Your task to perform on an android device: Search for "asus zenbook" on target, select the first entry, and add it to the cart. Image 0: 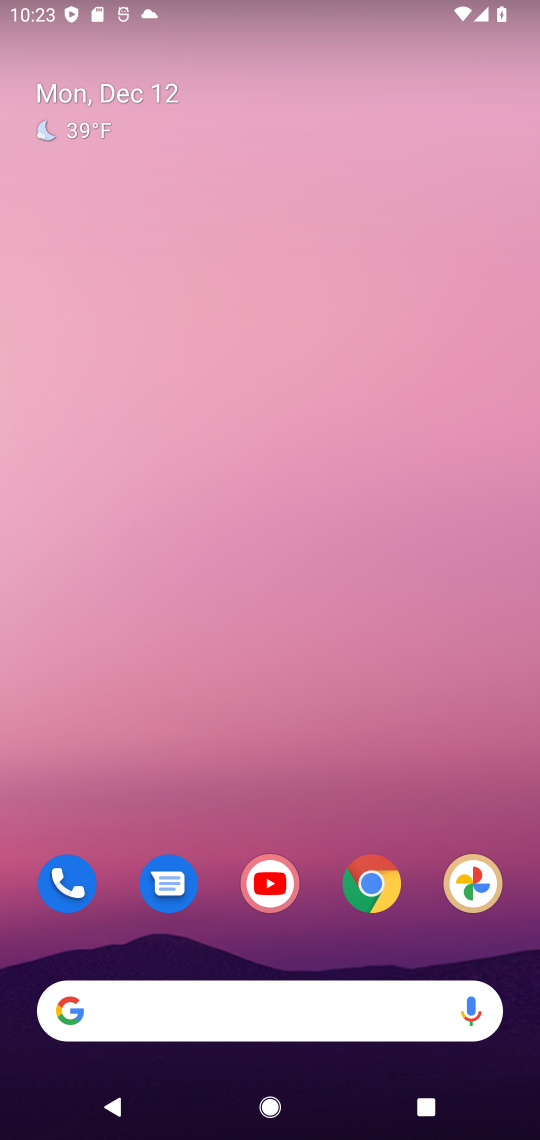
Step 0: click (235, 1013)
Your task to perform on an android device: Search for "asus zenbook" on target, select the first entry, and add it to the cart. Image 1: 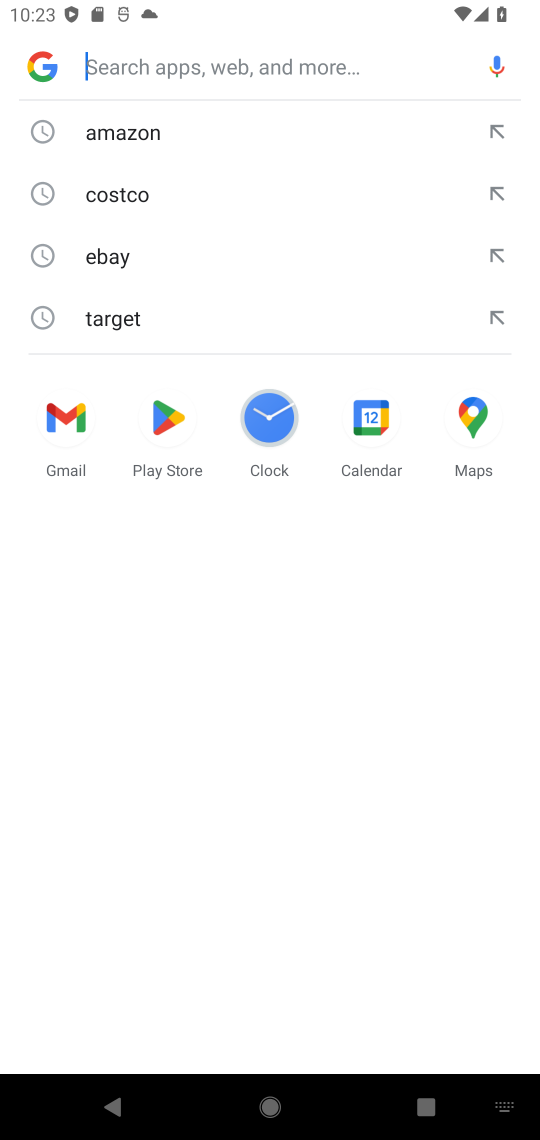
Step 1: click (143, 304)
Your task to perform on an android device: Search for "asus zenbook" on target, select the first entry, and add it to the cart. Image 2: 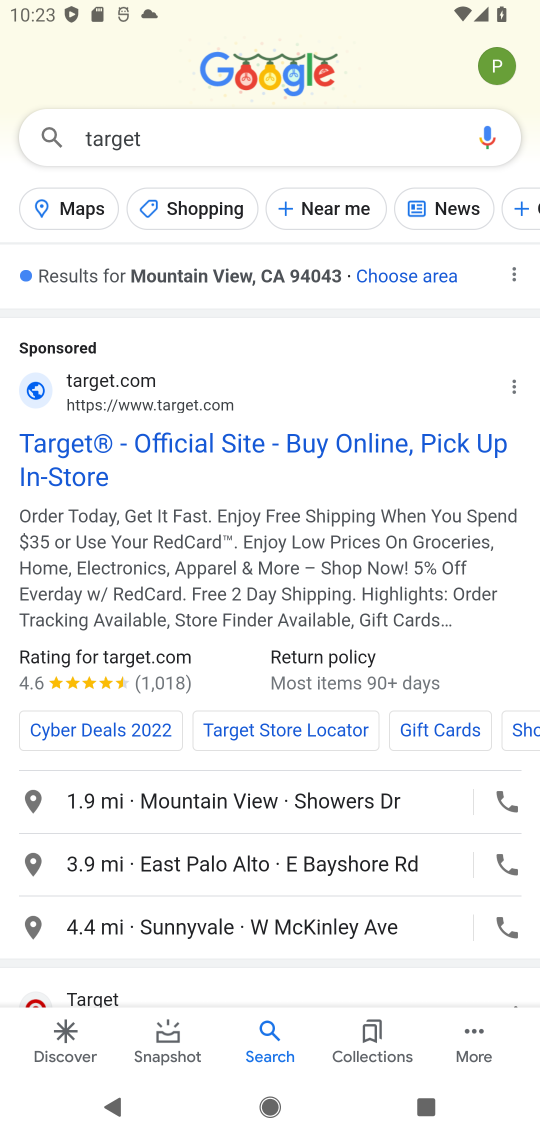
Step 2: drag from (227, 611) to (239, 541)
Your task to perform on an android device: Search for "asus zenbook" on target, select the first entry, and add it to the cart. Image 3: 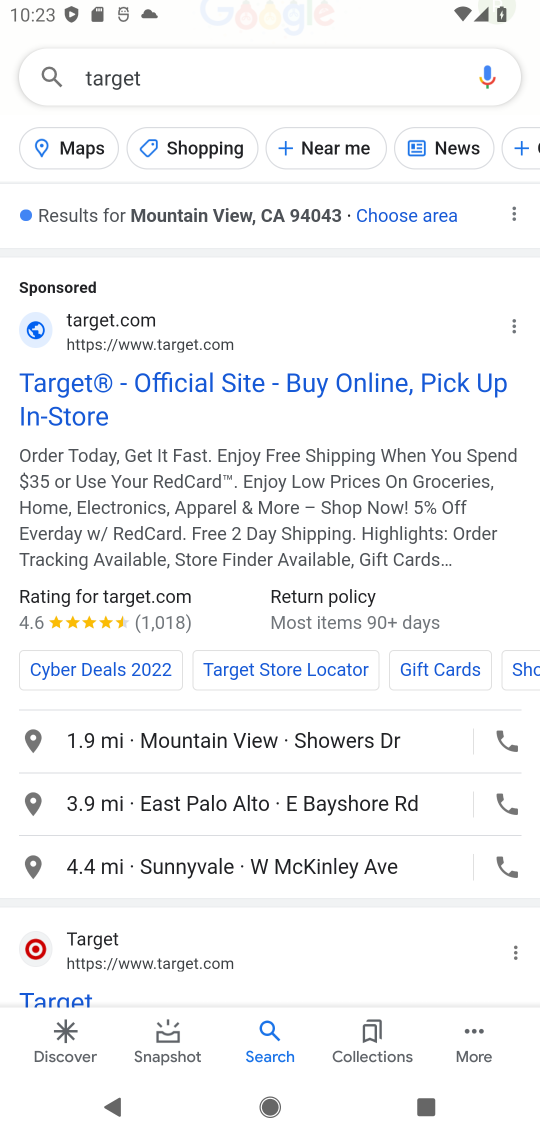
Step 3: click (56, 995)
Your task to perform on an android device: Search for "asus zenbook" on target, select the first entry, and add it to the cart. Image 4: 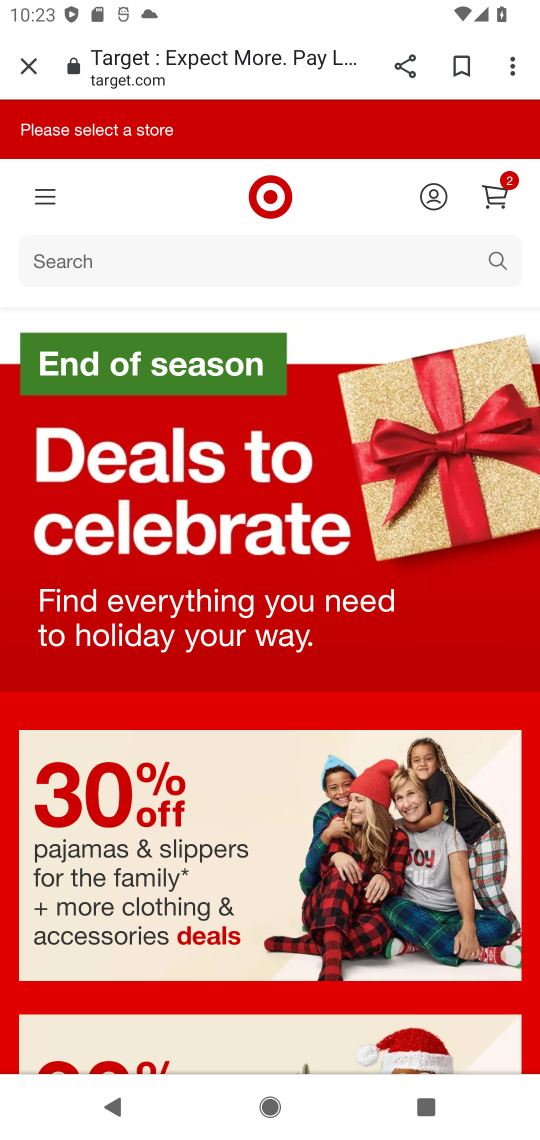
Step 4: click (253, 264)
Your task to perform on an android device: Search for "asus zenbook" on target, select the first entry, and add it to the cart. Image 5: 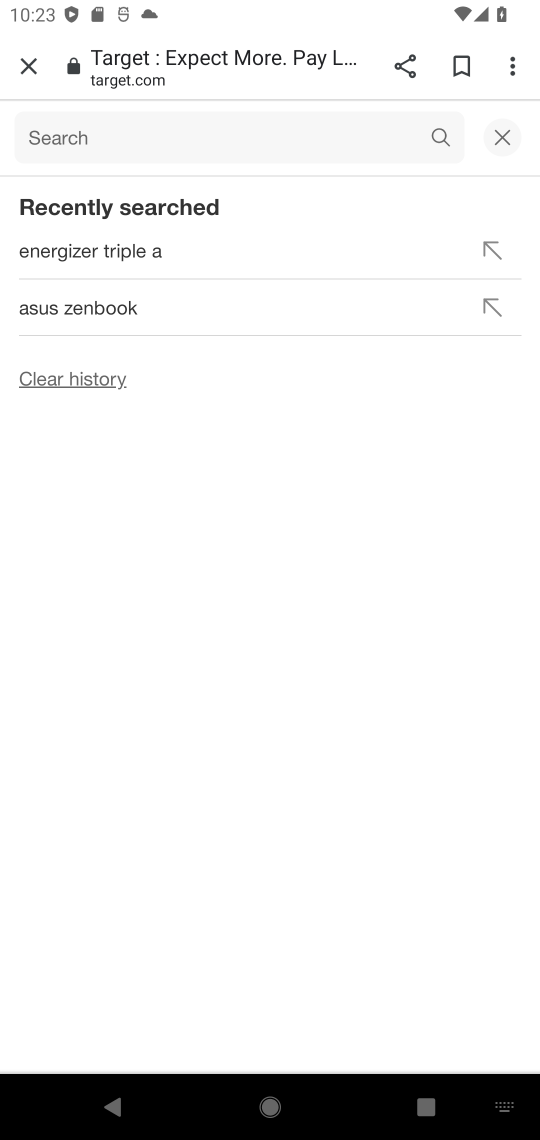
Step 5: type "asus zenbook"
Your task to perform on an android device: Search for "asus zenbook" on target, select the first entry, and add it to the cart. Image 6: 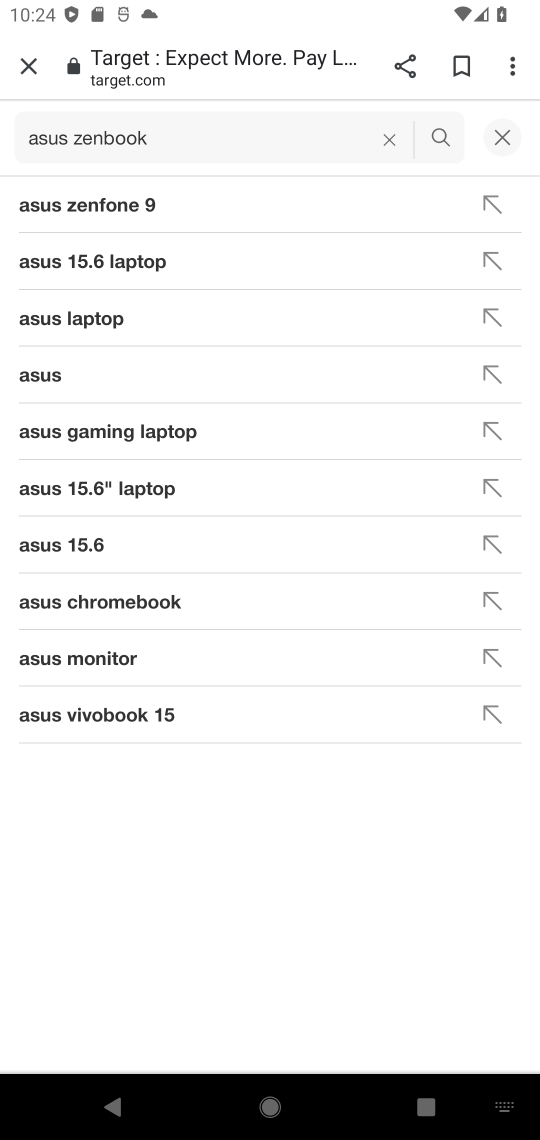
Step 6: click (439, 135)
Your task to perform on an android device: Search for "asus zenbook" on target, select the first entry, and add it to the cart. Image 7: 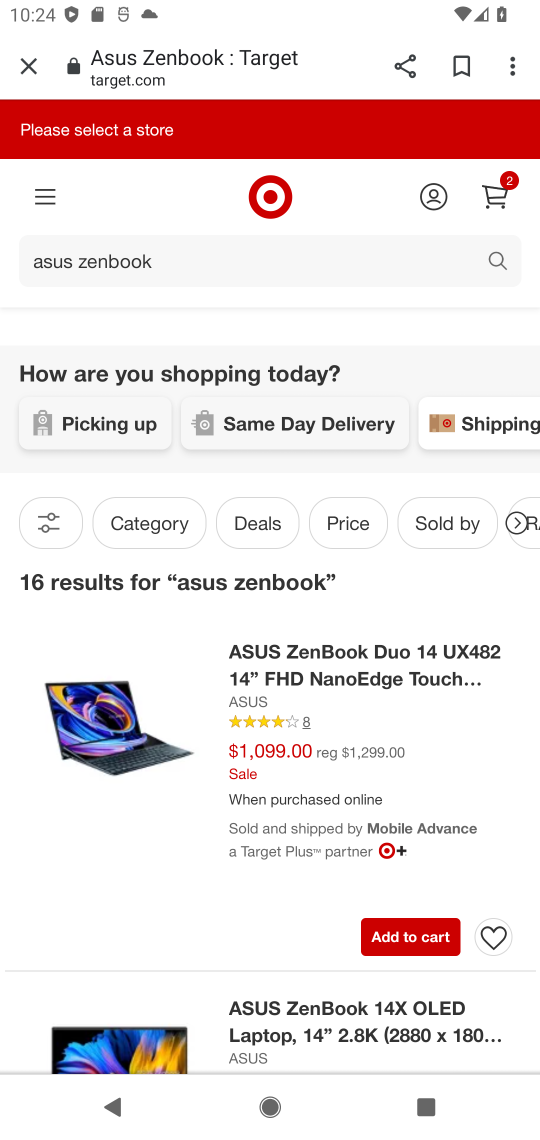
Step 7: drag from (193, 676) to (197, 616)
Your task to perform on an android device: Search for "asus zenbook" on target, select the first entry, and add it to the cart. Image 8: 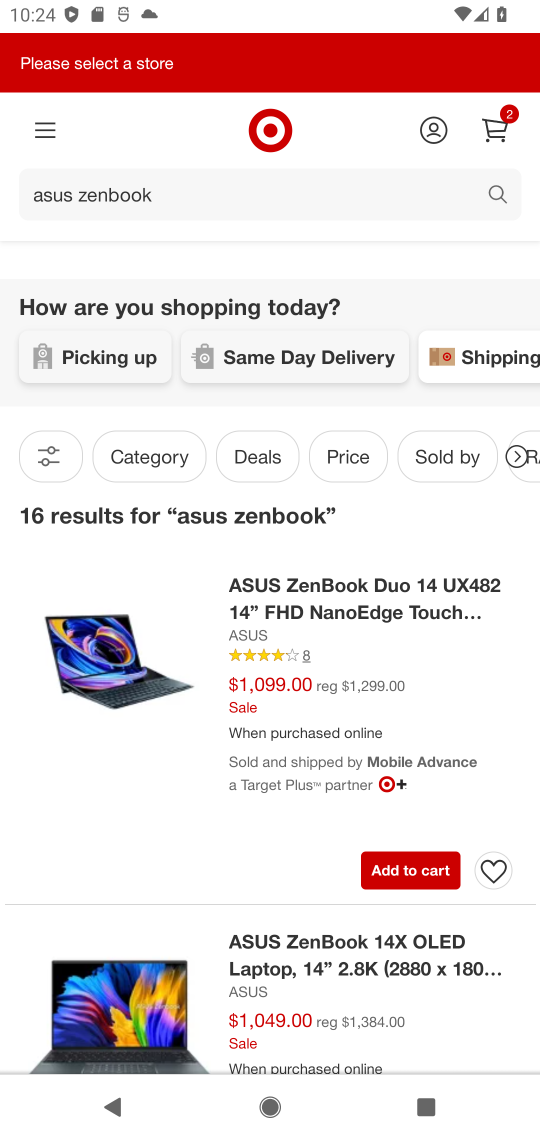
Step 8: click (405, 870)
Your task to perform on an android device: Search for "asus zenbook" on target, select the first entry, and add it to the cart. Image 9: 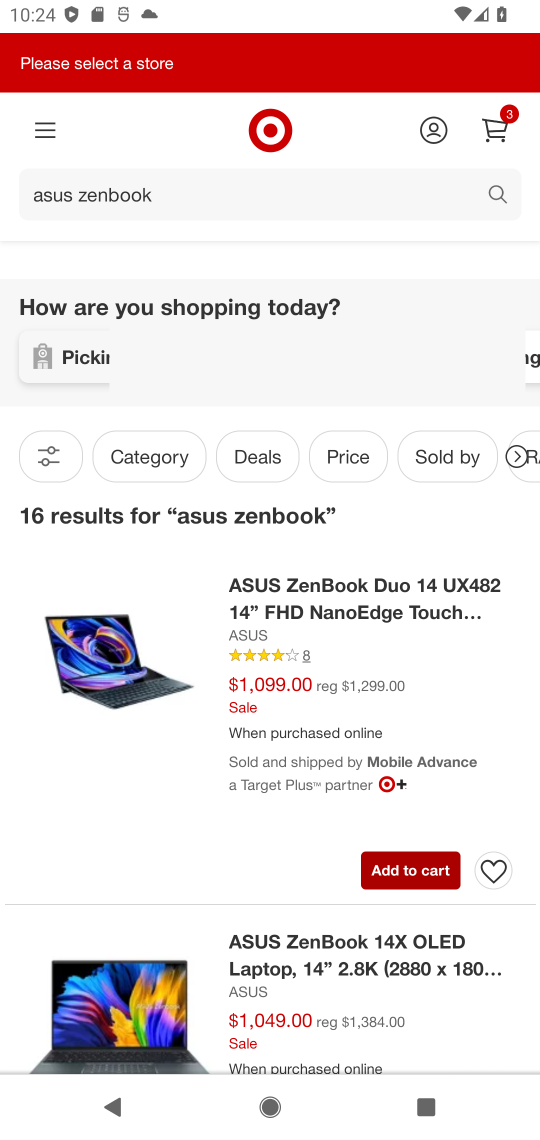
Step 9: task complete